Your task to perform on an android device: check the backup settings in the google photos Image 0: 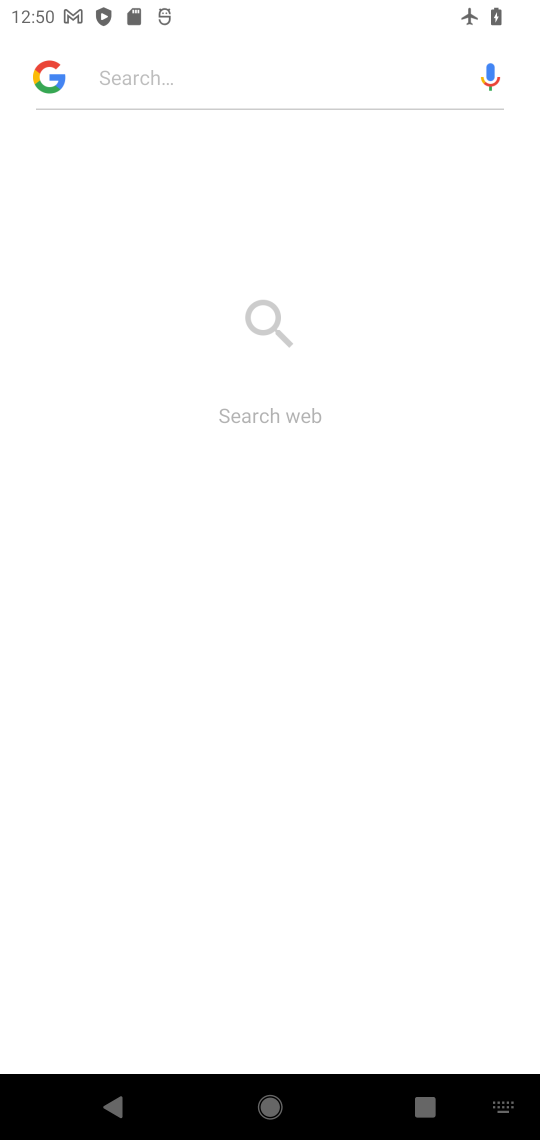
Step 0: press home button
Your task to perform on an android device: check the backup settings in the google photos Image 1: 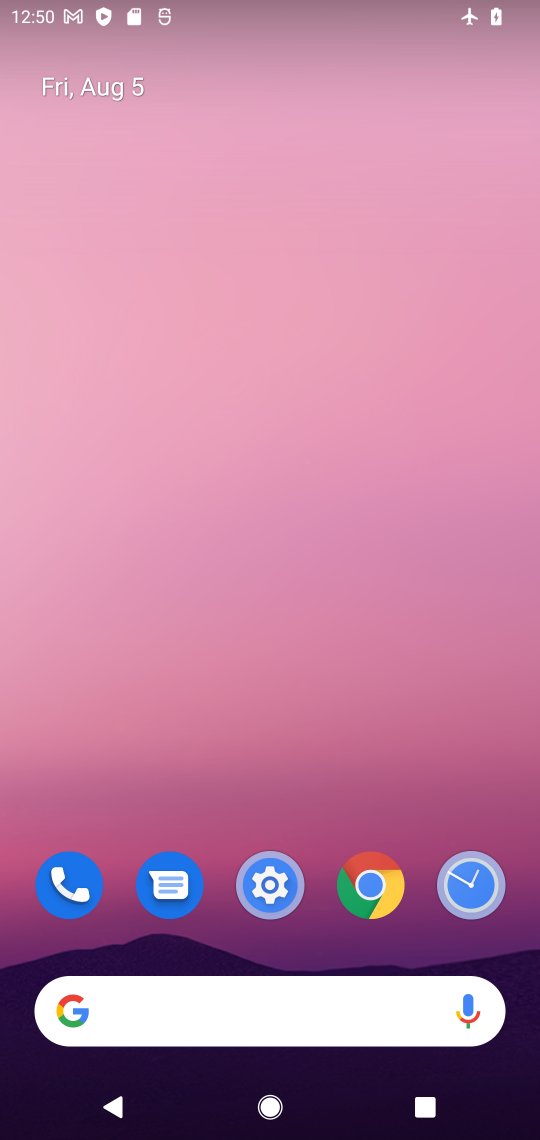
Step 1: drag from (292, 926) to (233, 309)
Your task to perform on an android device: check the backup settings in the google photos Image 2: 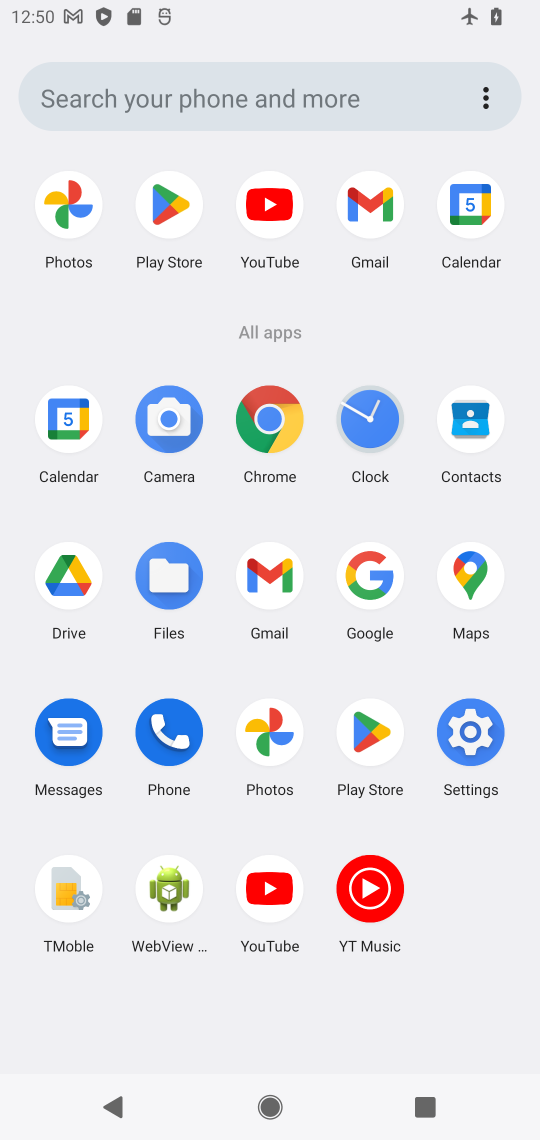
Step 2: click (258, 723)
Your task to perform on an android device: check the backup settings in the google photos Image 3: 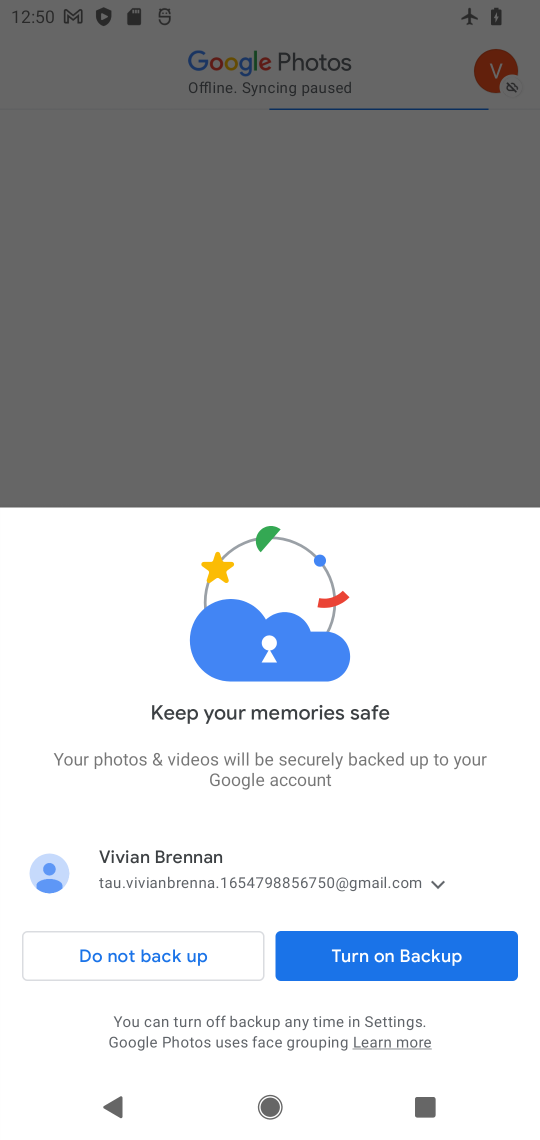
Step 3: click (343, 954)
Your task to perform on an android device: check the backup settings in the google photos Image 4: 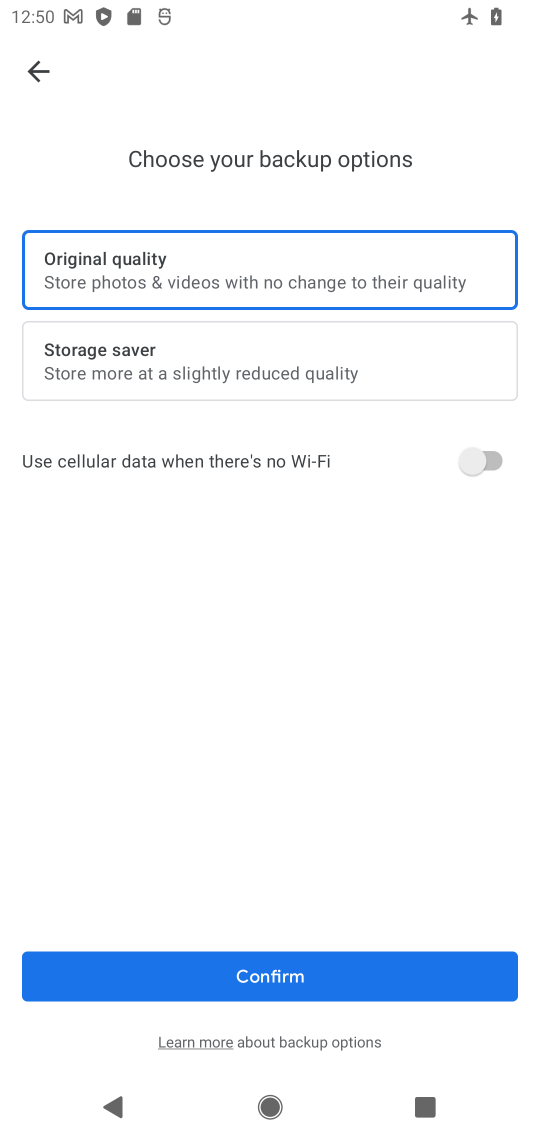
Step 4: click (46, 85)
Your task to perform on an android device: check the backup settings in the google photos Image 5: 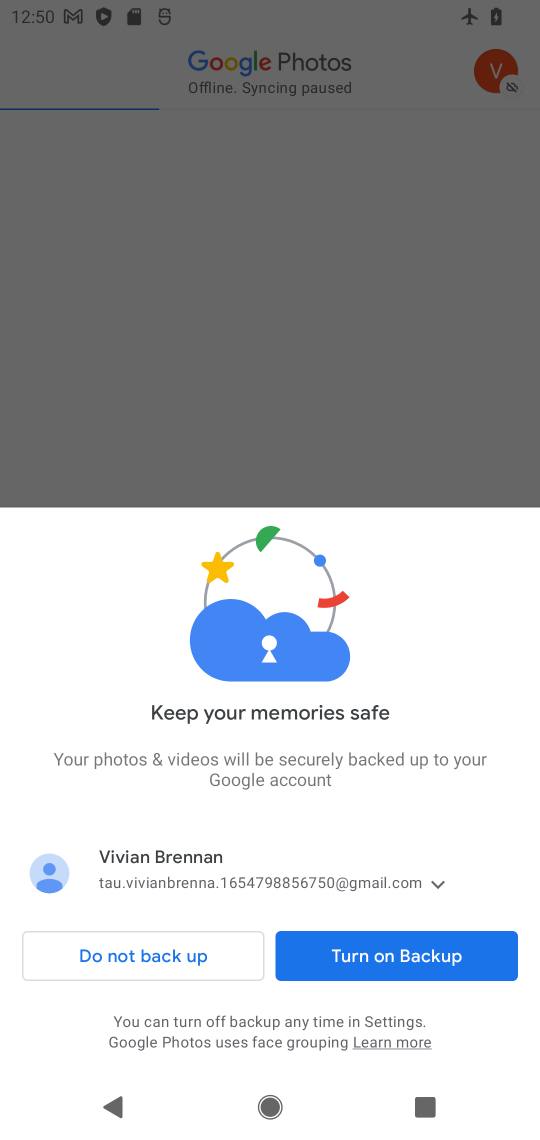
Step 5: click (450, 952)
Your task to perform on an android device: check the backup settings in the google photos Image 6: 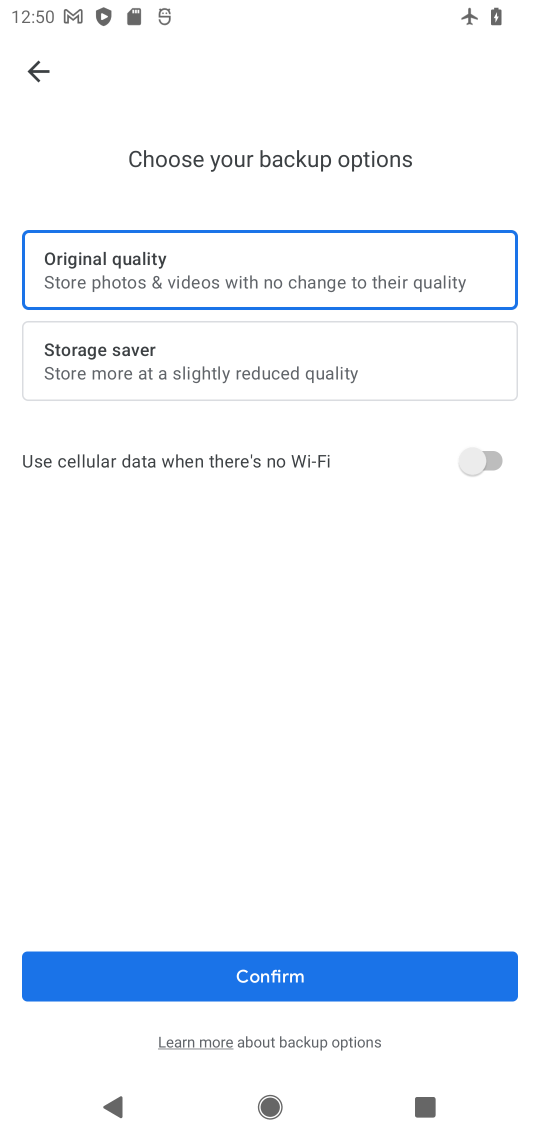
Step 6: click (418, 964)
Your task to perform on an android device: check the backup settings in the google photos Image 7: 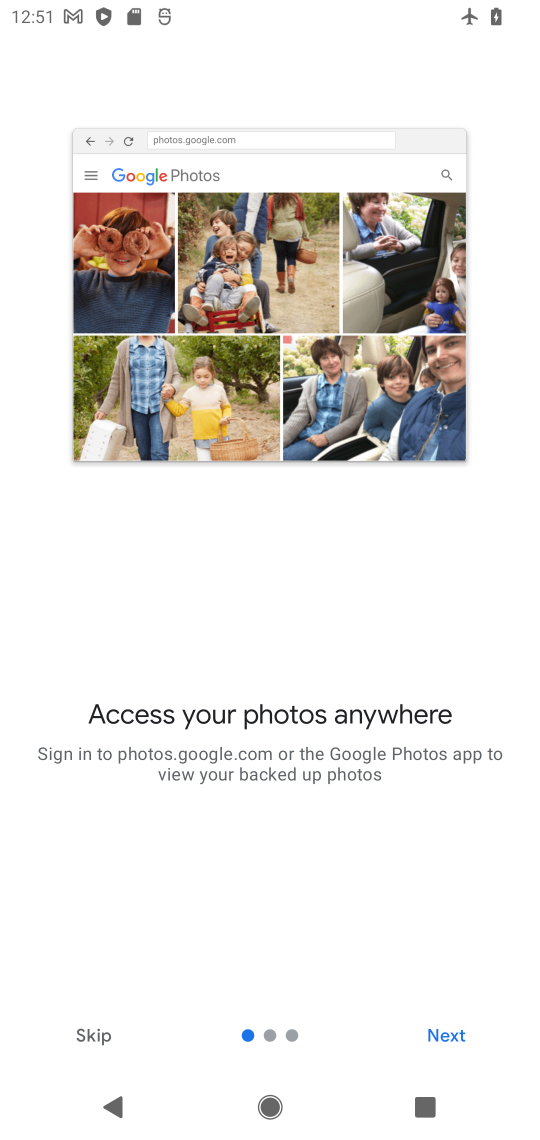
Step 7: click (459, 1038)
Your task to perform on an android device: check the backup settings in the google photos Image 8: 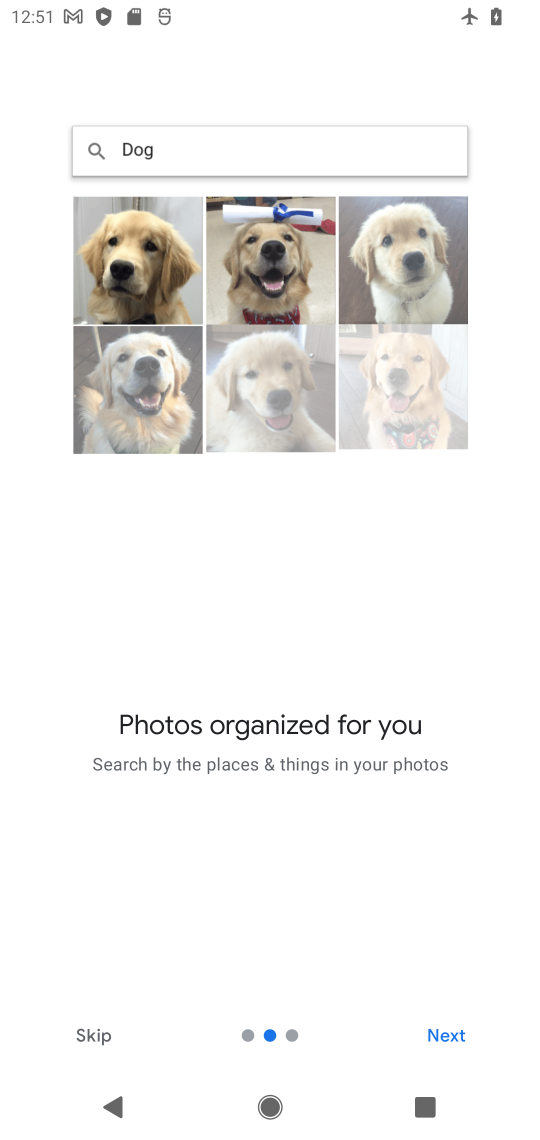
Step 8: click (459, 1038)
Your task to perform on an android device: check the backup settings in the google photos Image 9: 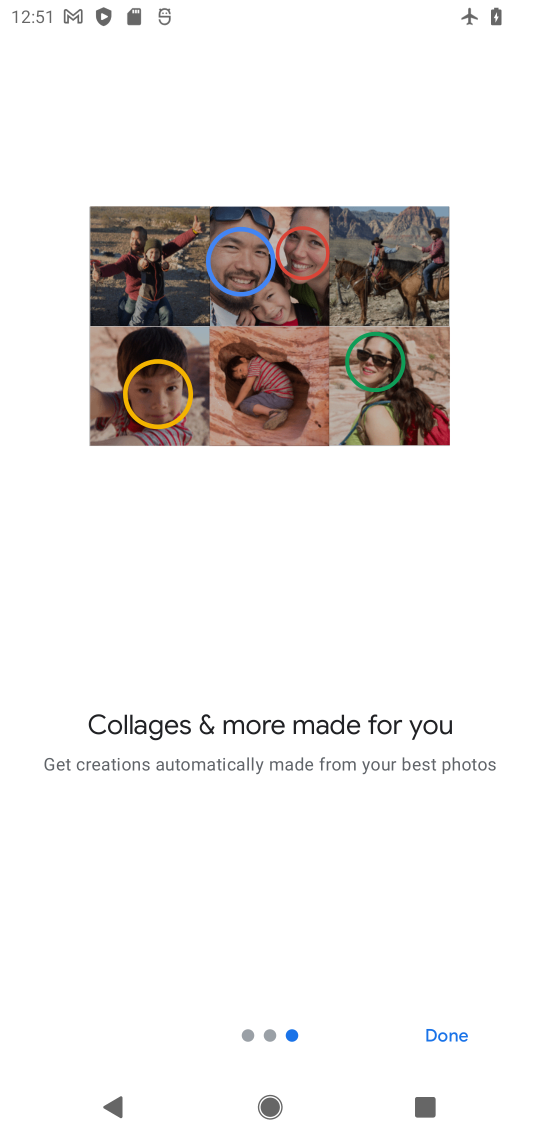
Step 9: click (459, 1038)
Your task to perform on an android device: check the backup settings in the google photos Image 10: 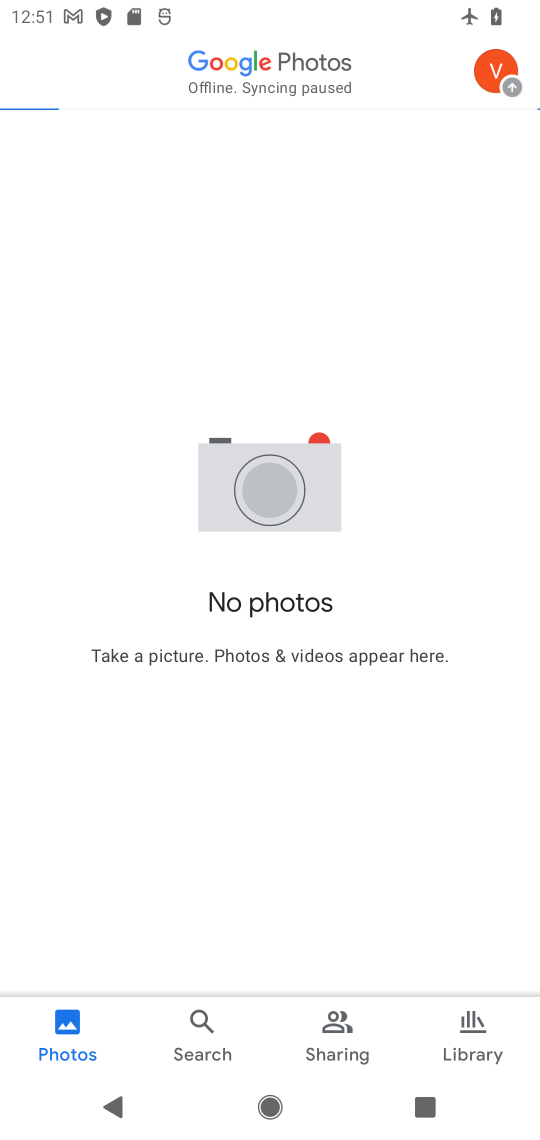
Step 10: click (513, 79)
Your task to perform on an android device: check the backup settings in the google photos Image 11: 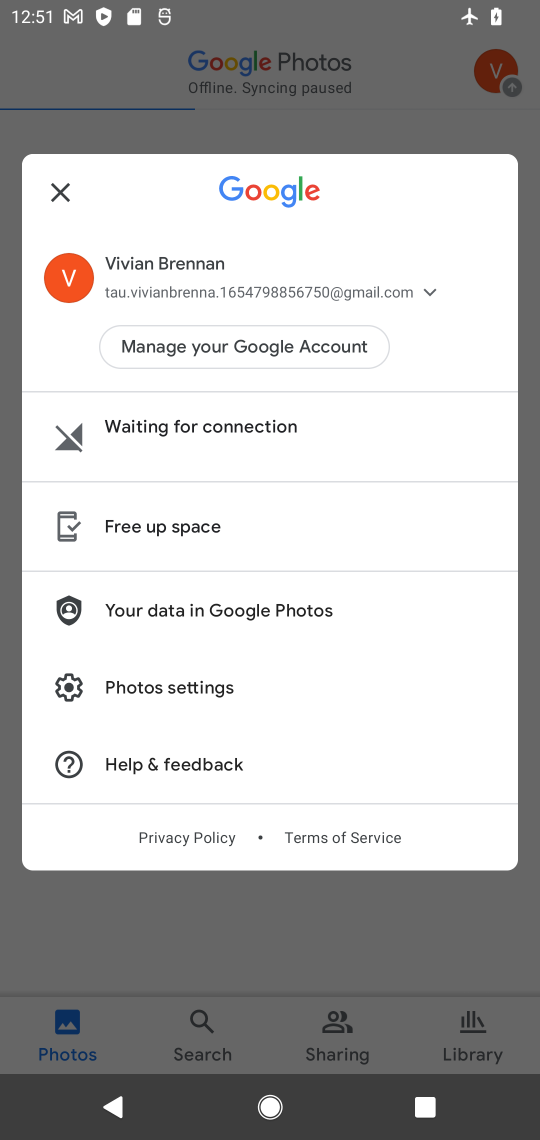
Step 11: click (172, 692)
Your task to perform on an android device: check the backup settings in the google photos Image 12: 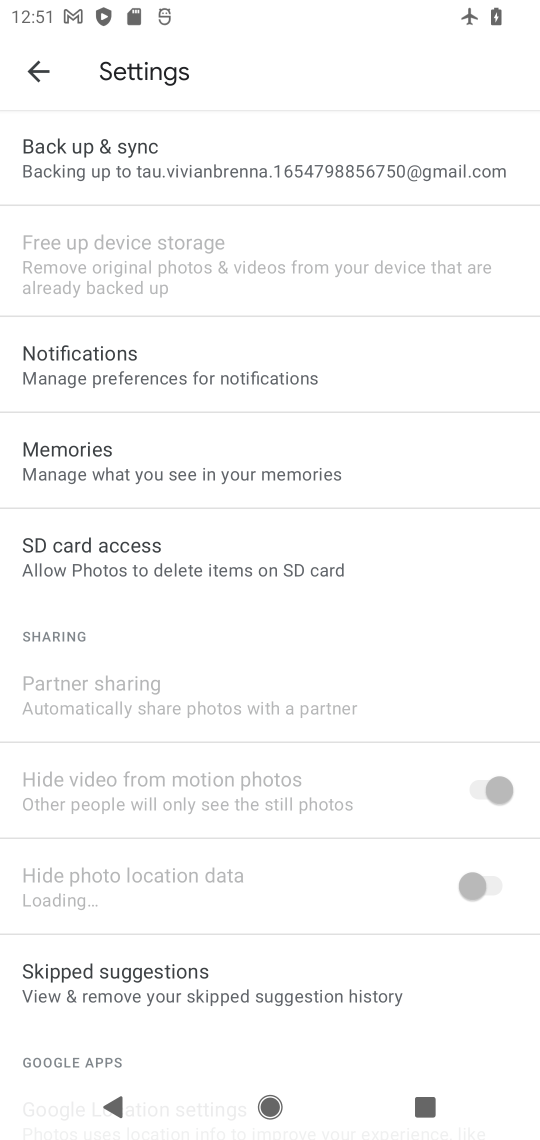
Step 12: click (222, 163)
Your task to perform on an android device: check the backup settings in the google photos Image 13: 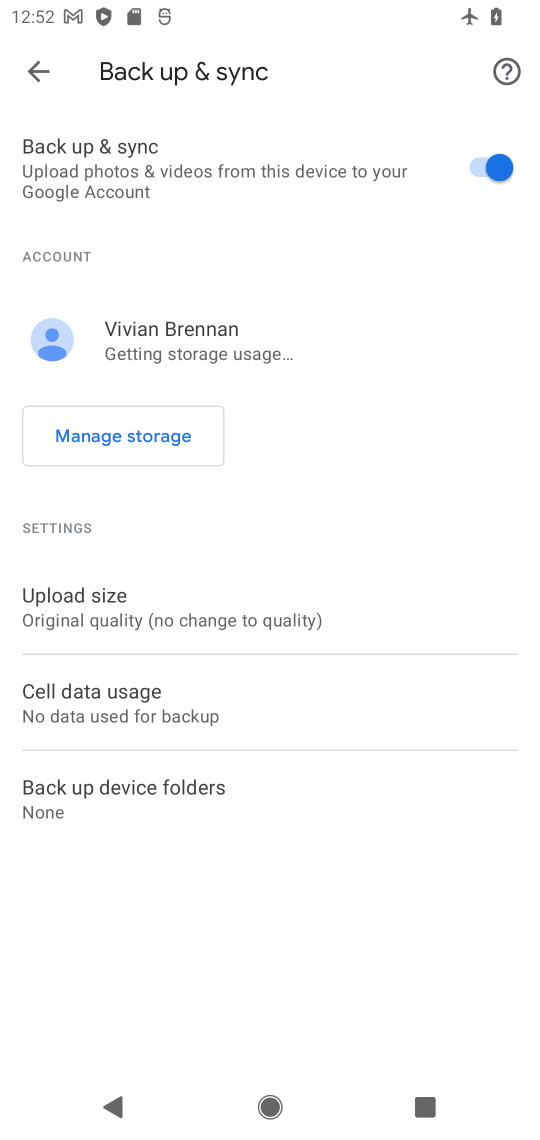
Step 13: task complete